Your task to perform on an android device: Do I have any events today? Image 0: 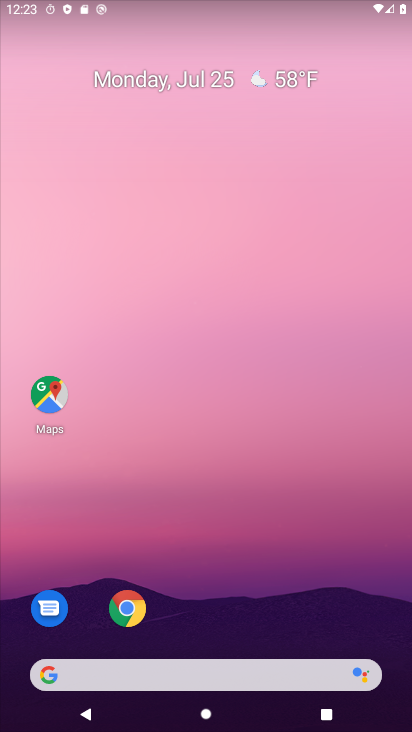
Step 0: drag from (349, 622) to (254, 177)
Your task to perform on an android device: Do I have any events today? Image 1: 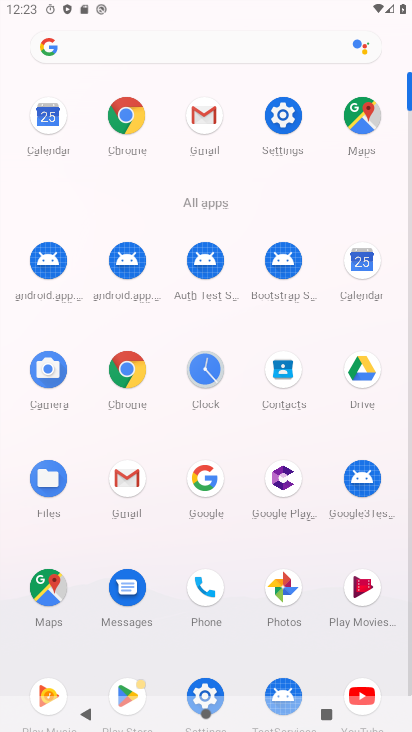
Step 1: click (361, 256)
Your task to perform on an android device: Do I have any events today? Image 2: 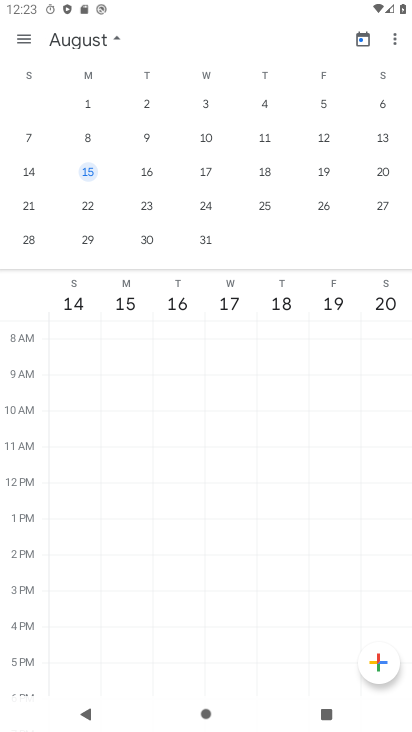
Step 2: click (96, 166)
Your task to perform on an android device: Do I have any events today? Image 3: 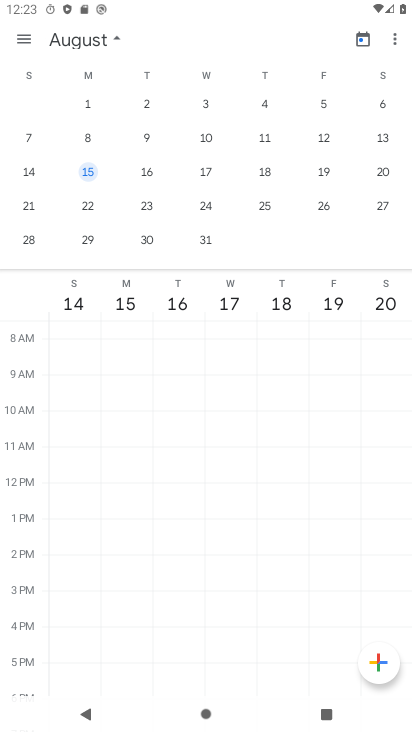
Step 3: click (95, 166)
Your task to perform on an android device: Do I have any events today? Image 4: 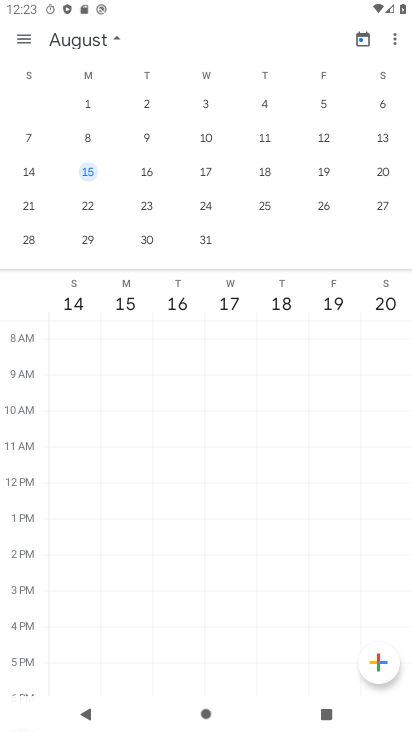
Step 4: click (95, 166)
Your task to perform on an android device: Do I have any events today? Image 5: 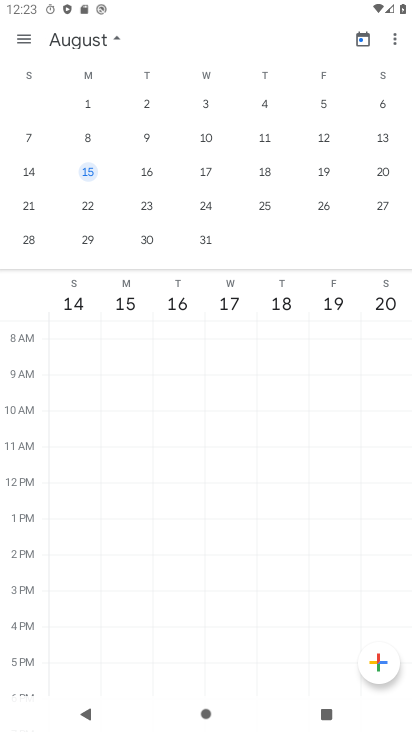
Step 5: click (95, 166)
Your task to perform on an android device: Do I have any events today? Image 6: 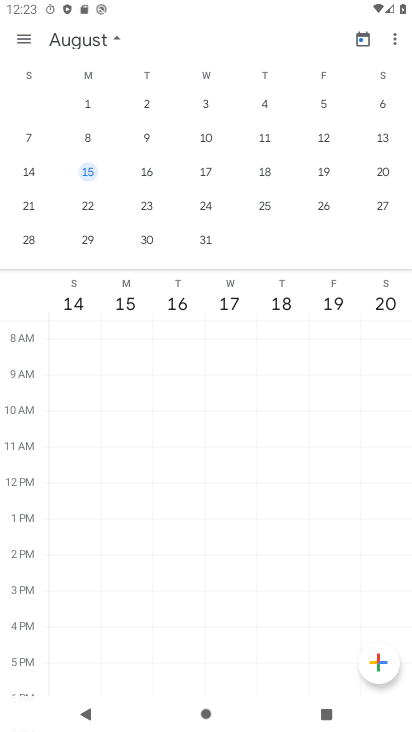
Step 6: click (129, 297)
Your task to perform on an android device: Do I have any events today? Image 7: 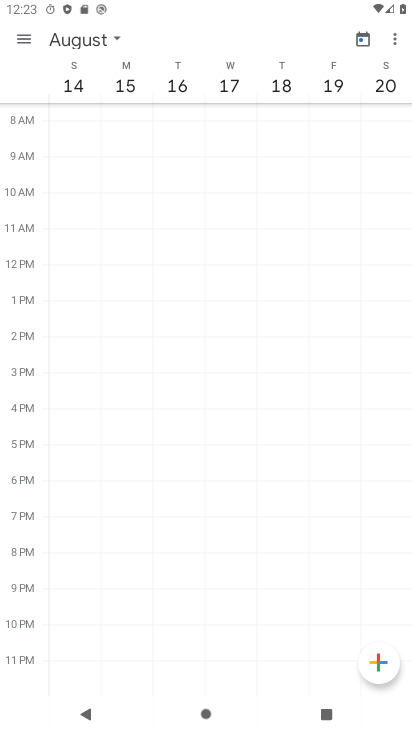
Step 7: click (129, 297)
Your task to perform on an android device: Do I have any events today? Image 8: 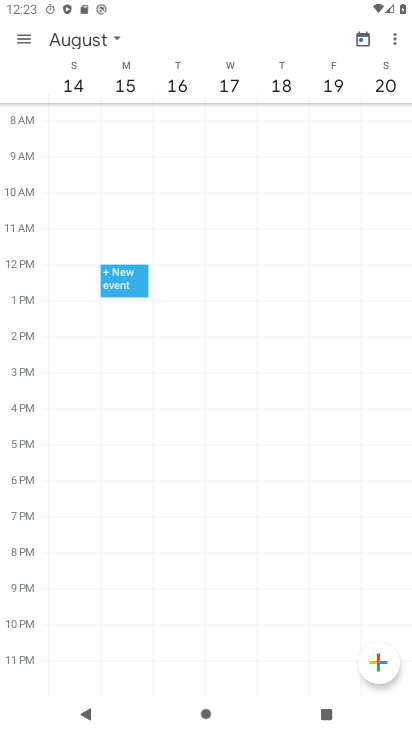
Step 8: click (127, 77)
Your task to perform on an android device: Do I have any events today? Image 9: 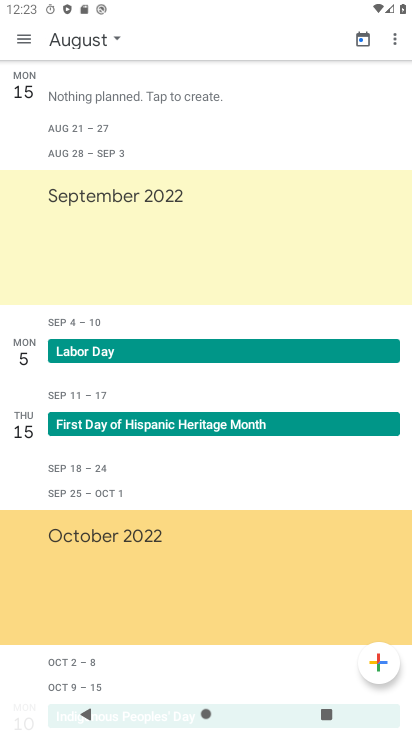
Step 9: click (66, 38)
Your task to perform on an android device: Do I have any events today? Image 10: 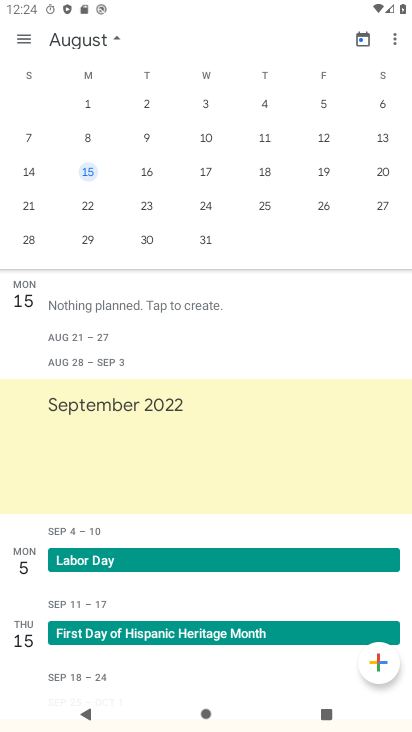
Step 10: drag from (30, 164) to (362, 157)
Your task to perform on an android device: Do I have any events today? Image 11: 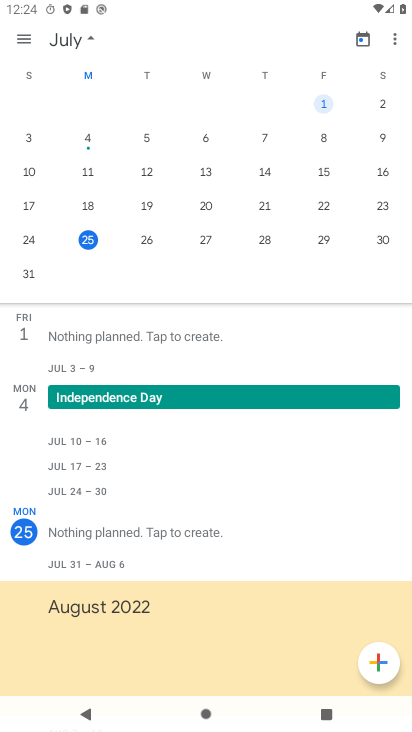
Step 11: click (91, 236)
Your task to perform on an android device: Do I have any events today? Image 12: 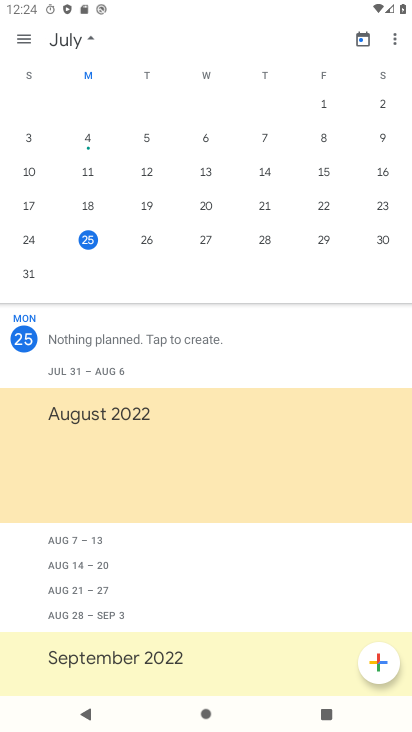
Step 12: task complete